Your task to perform on an android device: Open wifi settings Image 0: 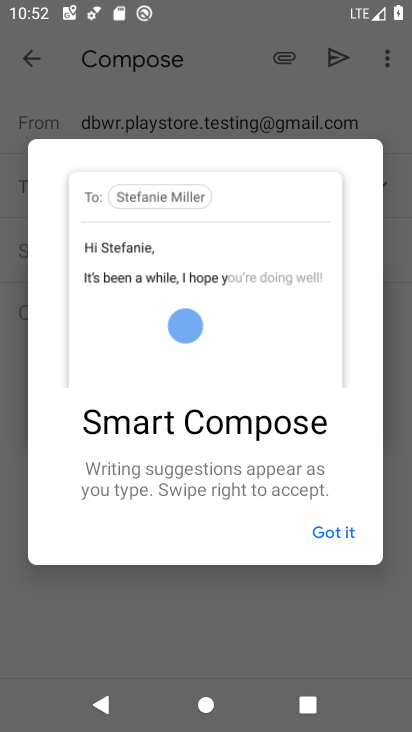
Step 0: press home button
Your task to perform on an android device: Open wifi settings Image 1: 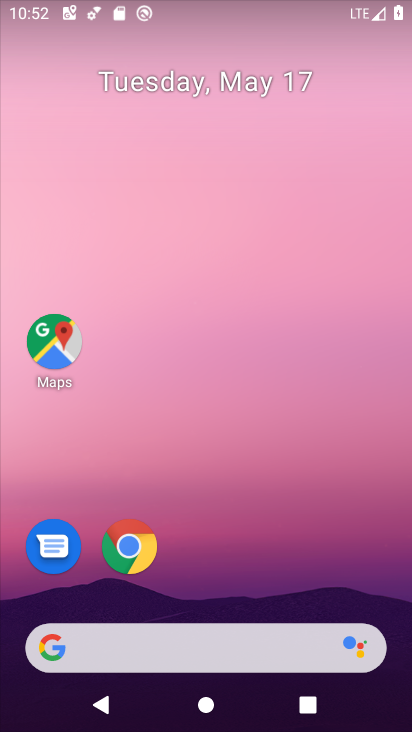
Step 1: drag from (257, 563) to (277, 77)
Your task to perform on an android device: Open wifi settings Image 2: 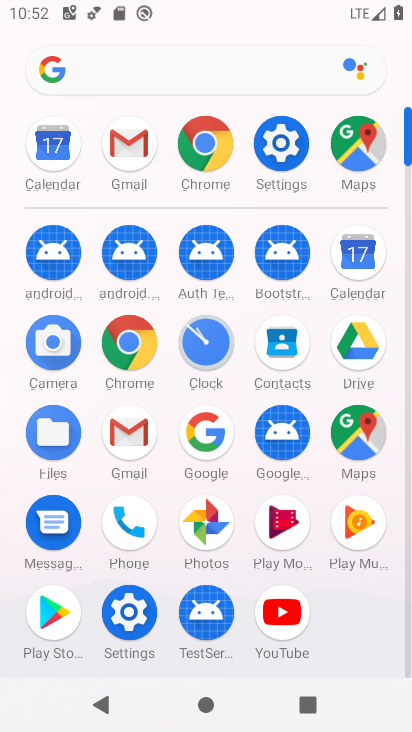
Step 2: click (286, 158)
Your task to perform on an android device: Open wifi settings Image 3: 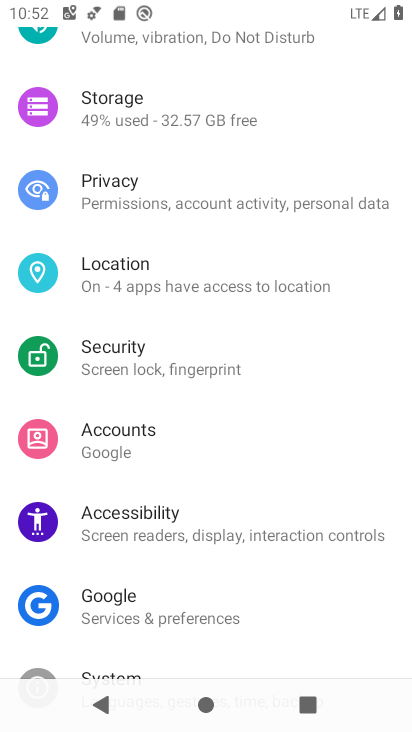
Step 3: drag from (217, 137) to (169, 473)
Your task to perform on an android device: Open wifi settings Image 4: 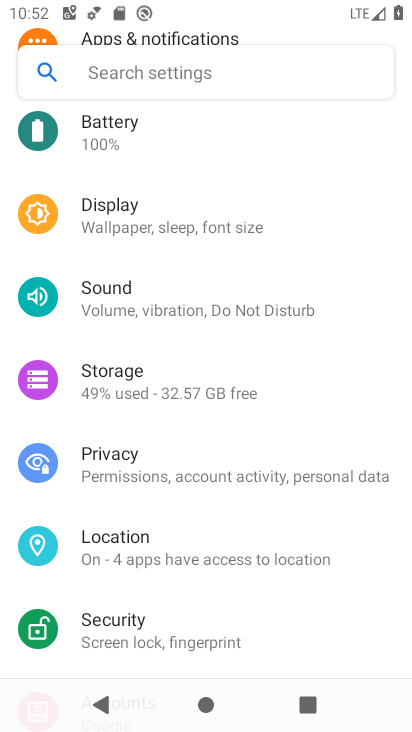
Step 4: drag from (174, 148) to (150, 473)
Your task to perform on an android device: Open wifi settings Image 5: 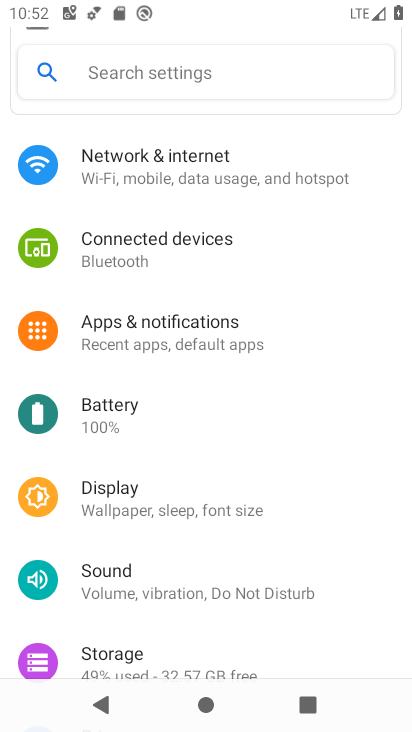
Step 5: click (160, 178)
Your task to perform on an android device: Open wifi settings Image 6: 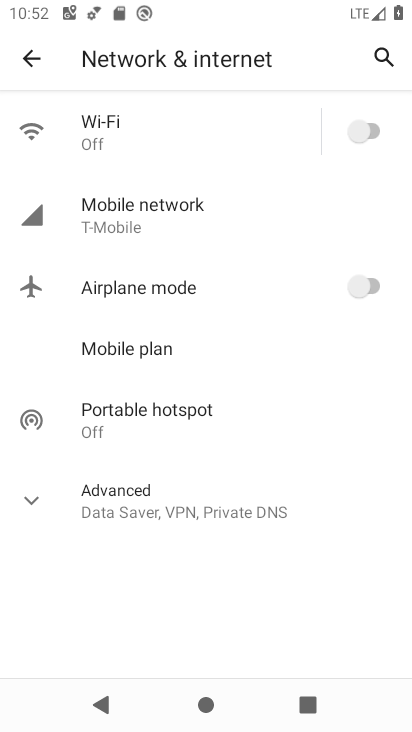
Step 6: click (235, 145)
Your task to perform on an android device: Open wifi settings Image 7: 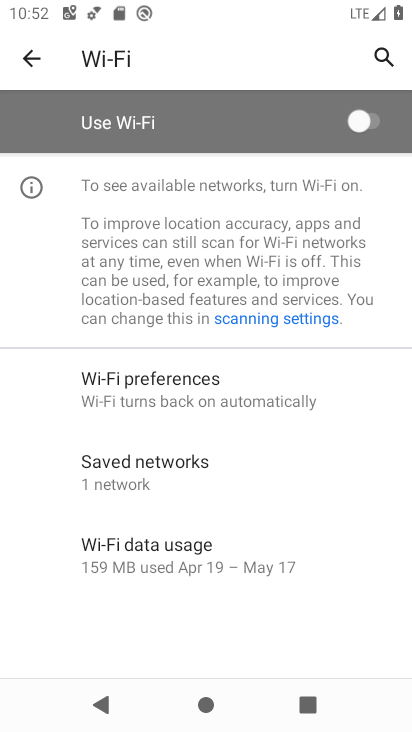
Step 7: task complete